Your task to perform on an android device: remove spam from my inbox in the gmail app Image 0: 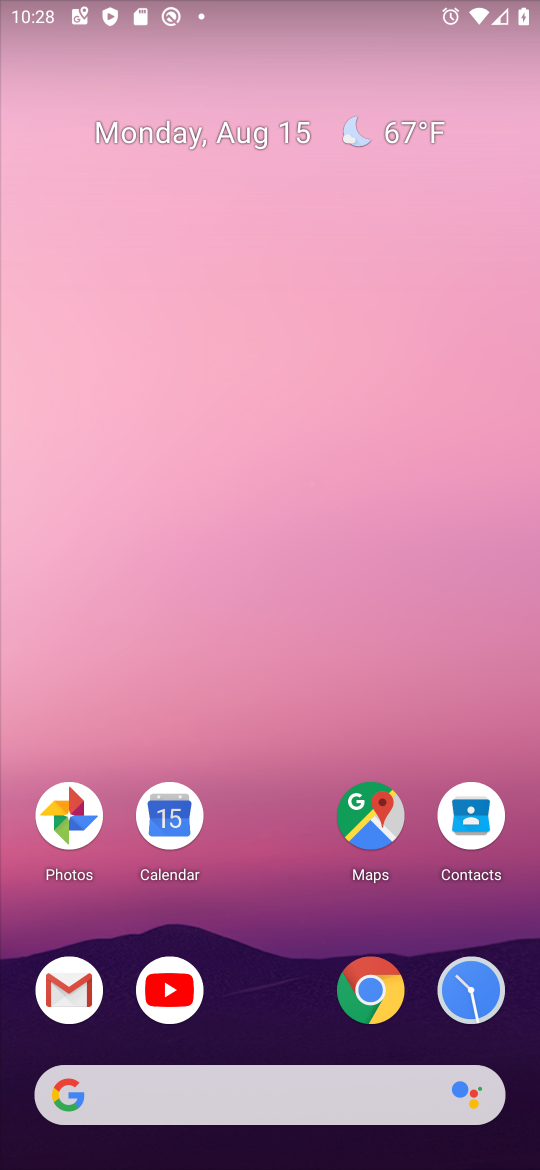
Step 0: click (75, 983)
Your task to perform on an android device: remove spam from my inbox in the gmail app Image 1: 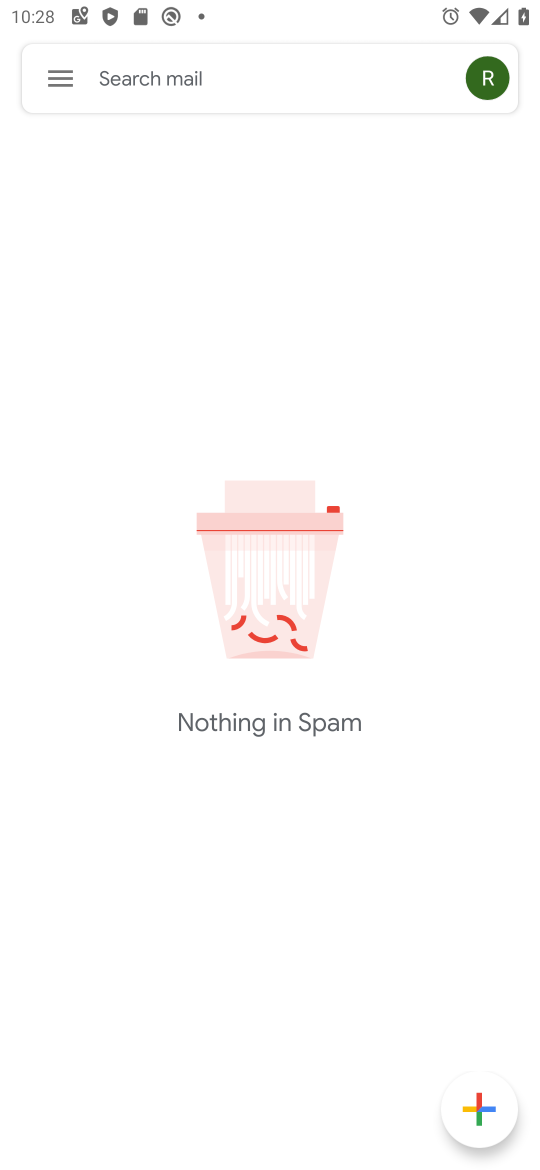
Step 1: click (57, 77)
Your task to perform on an android device: remove spam from my inbox in the gmail app Image 2: 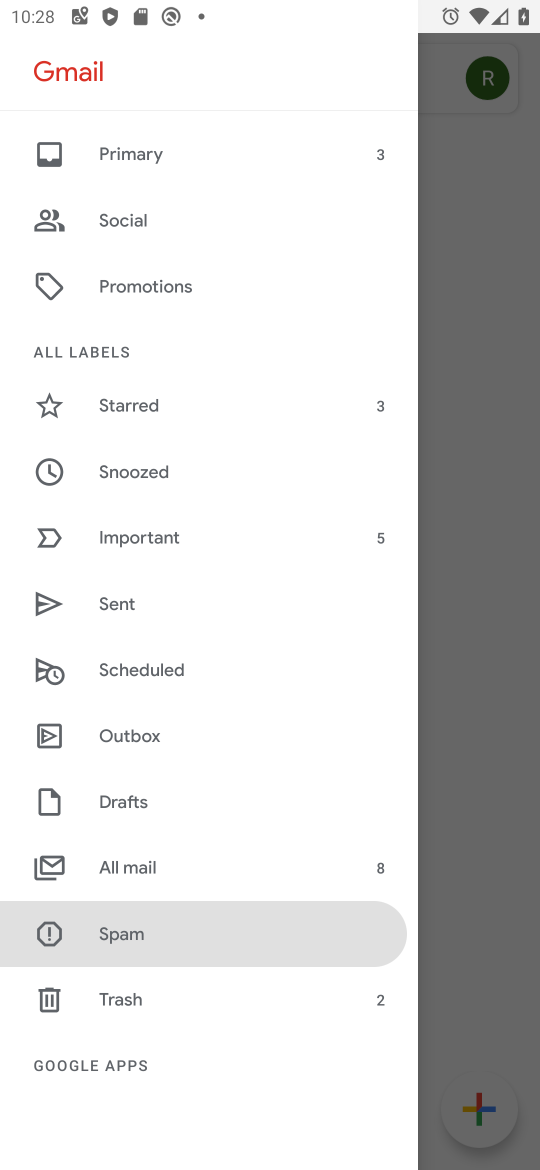
Step 2: click (91, 932)
Your task to perform on an android device: remove spam from my inbox in the gmail app Image 3: 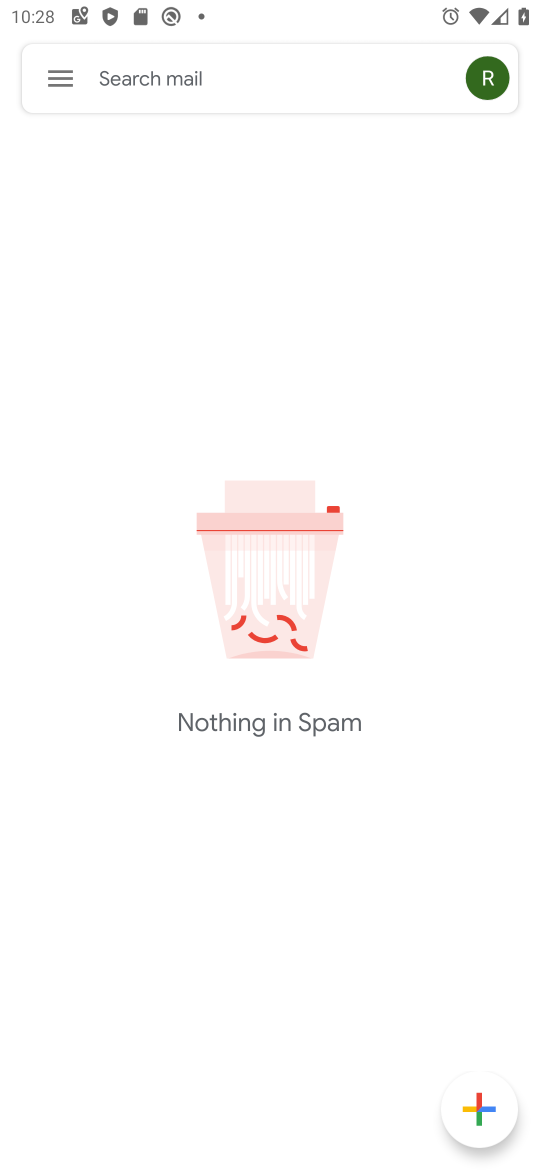
Step 3: task complete